Your task to perform on an android device: read, delete, or share a saved page in the chrome app Image 0: 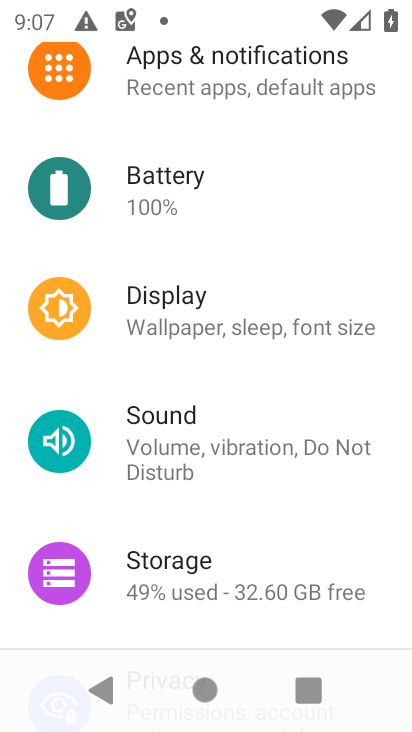
Step 0: press home button
Your task to perform on an android device: read, delete, or share a saved page in the chrome app Image 1: 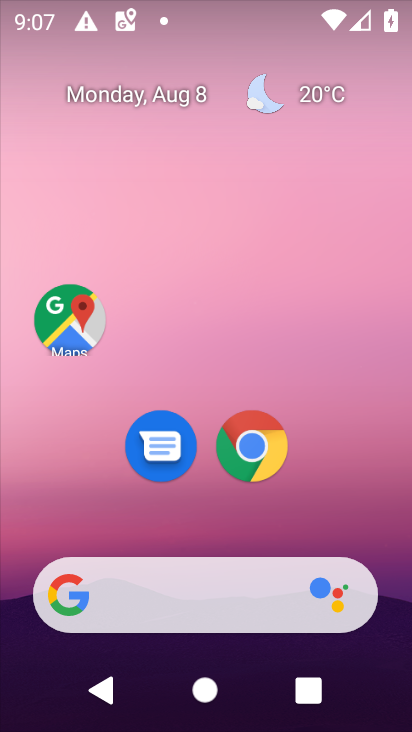
Step 1: click (251, 444)
Your task to perform on an android device: read, delete, or share a saved page in the chrome app Image 2: 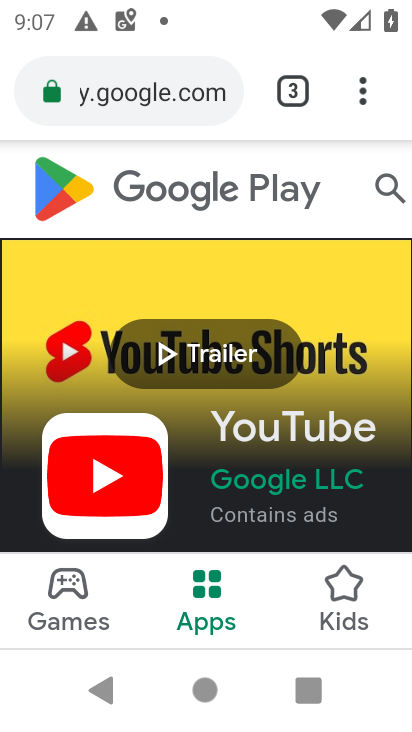
Step 2: click (353, 106)
Your task to perform on an android device: read, delete, or share a saved page in the chrome app Image 3: 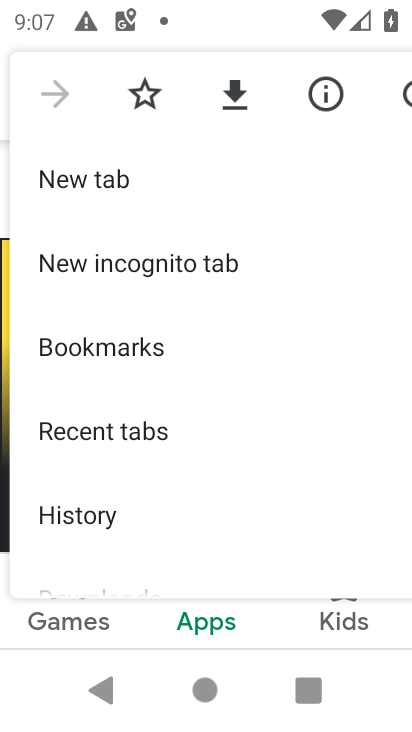
Step 3: drag from (171, 544) to (225, 167)
Your task to perform on an android device: read, delete, or share a saved page in the chrome app Image 4: 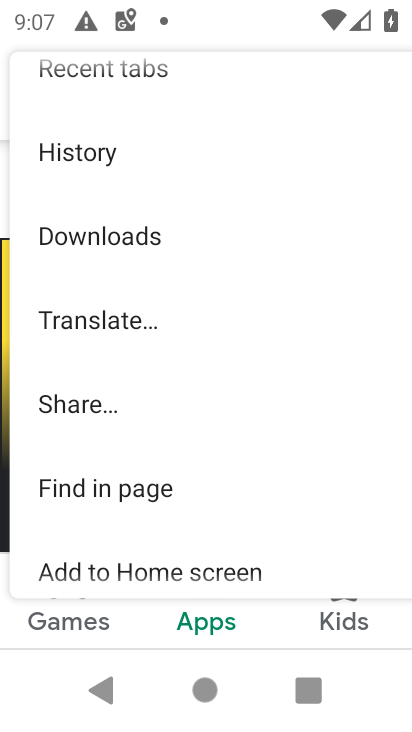
Step 4: click (110, 249)
Your task to perform on an android device: read, delete, or share a saved page in the chrome app Image 5: 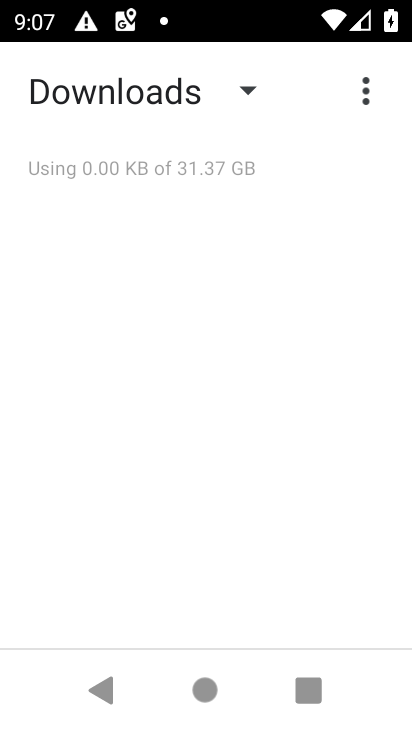
Step 5: click (241, 94)
Your task to perform on an android device: read, delete, or share a saved page in the chrome app Image 6: 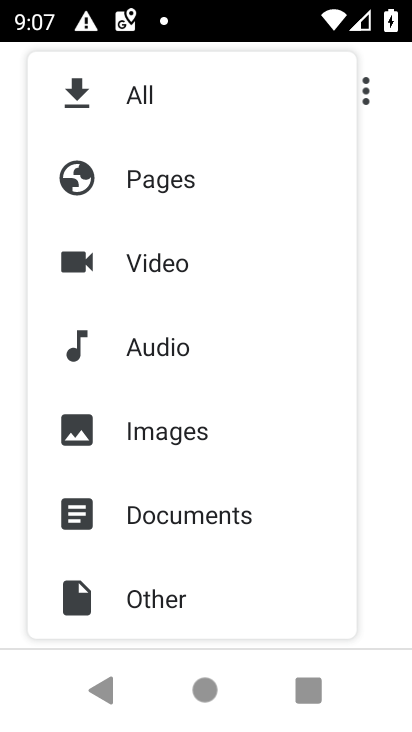
Step 6: click (108, 203)
Your task to perform on an android device: read, delete, or share a saved page in the chrome app Image 7: 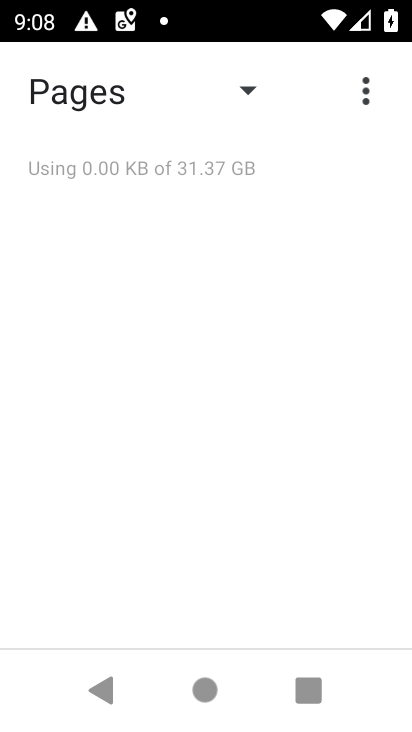
Step 7: task complete